Your task to perform on an android device: What is the recent news? Image 0: 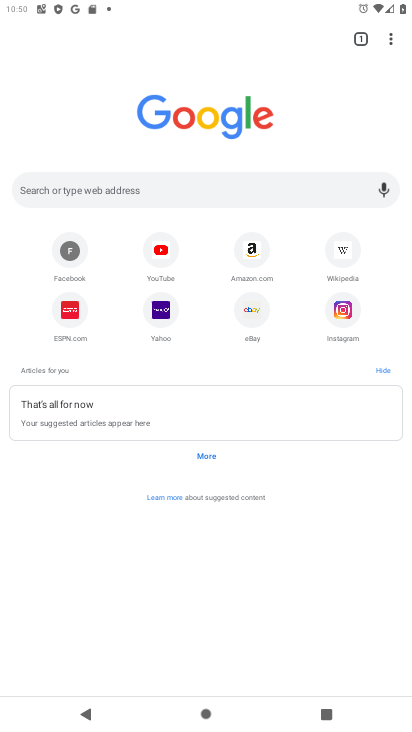
Step 0: press home button
Your task to perform on an android device: What is the recent news? Image 1: 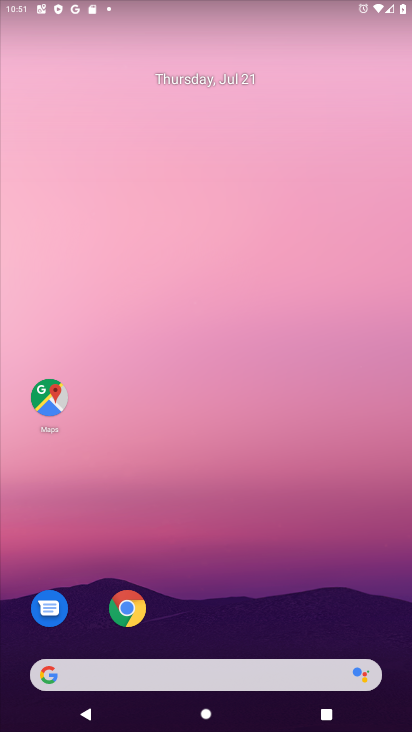
Step 1: drag from (332, 600) to (223, 63)
Your task to perform on an android device: What is the recent news? Image 2: 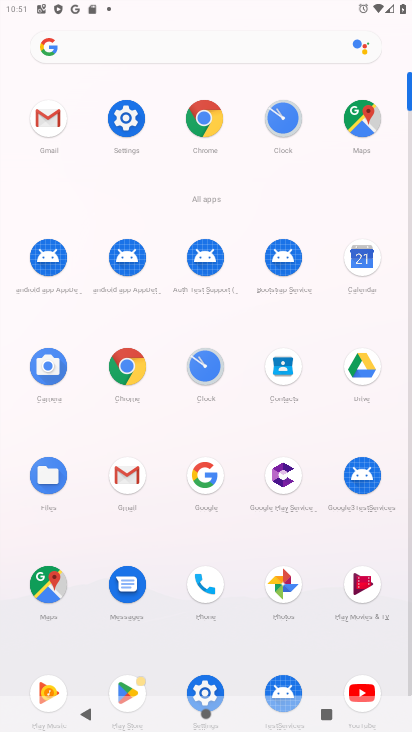
Step 2: click (201, 479)
Your task to perform on an android device: What is the recent news? Image 3: 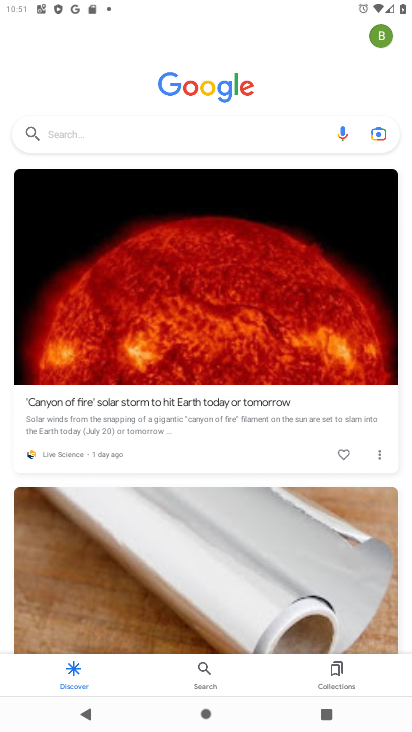
Step 3: click (116, 138)
Your task to perform on an android device: What is the recent news? Image 4: 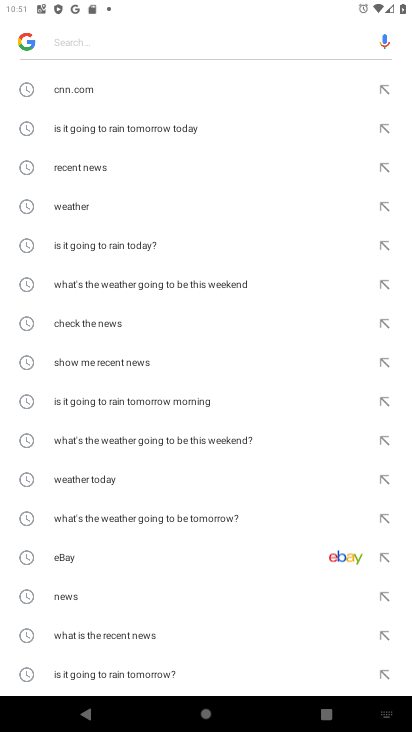
Step 4: click (92, 165)
Your task to perform on an android device: What is the recent news? Image 5: 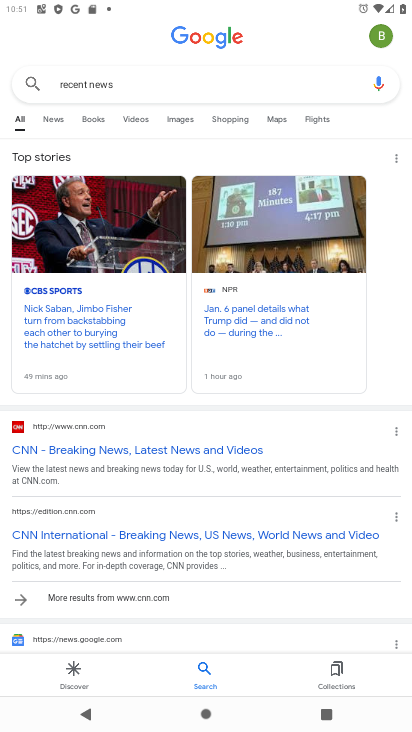
Step 5: task complete